Your task to perform on an android device: Show me the alarms in the clock app Image 0: 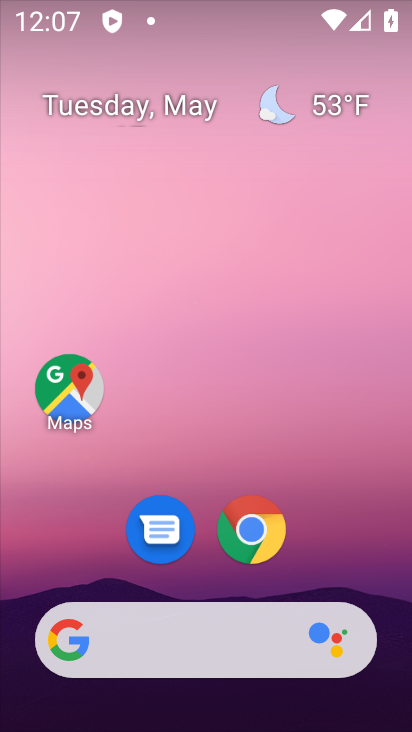
Step 0: drag from (211, 563) to (312, 181)
Your task to perform on an android device: Show me the alarms in the clock app Image 1: 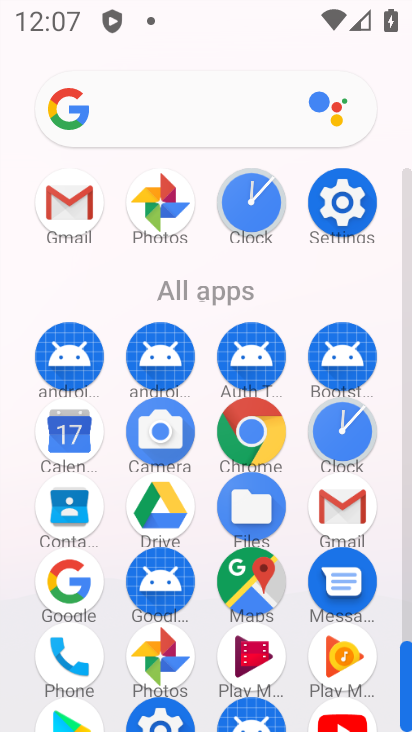
Step 1: click (255, 191)
Your task to perform on an android device: Show me the alarms in the clock app Image 2: 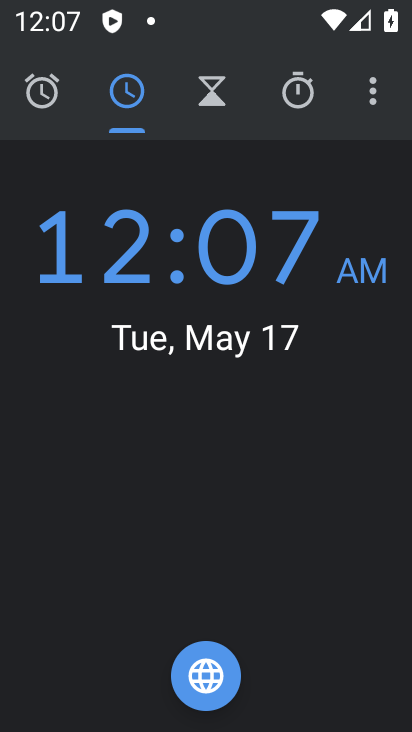
Step 2: click (63, 100)
Your task to perform on an android device: Show me the alarms in the clock app Image 3: 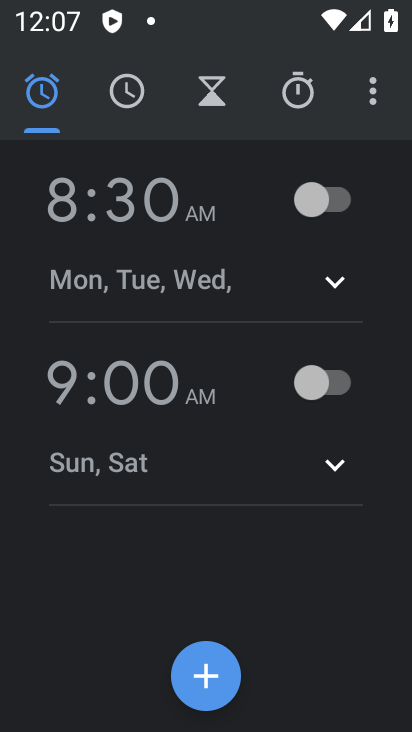
Step 3: task complete